Your task to perform on an android device: set the stopwatch Image 0: 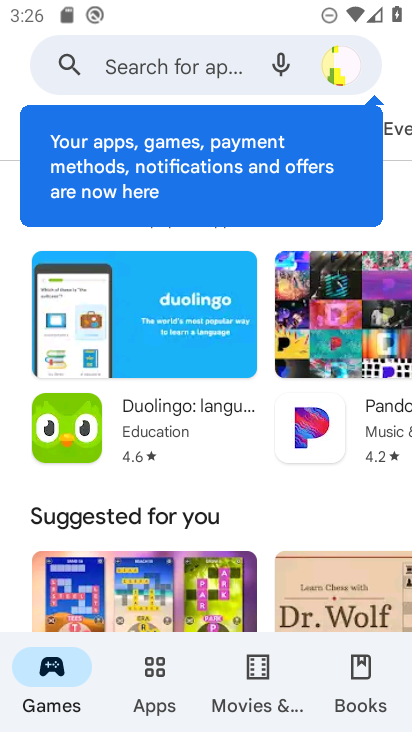
Step 0: press home button
Your task to perform on an android device: set the stopwatch Image 1: 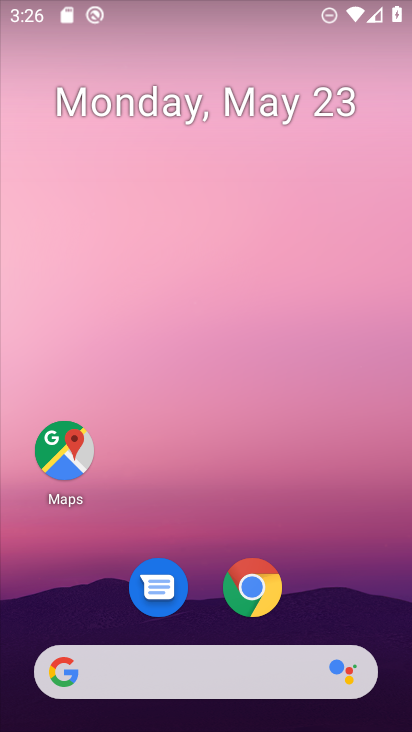
Step 1: drag from (231, 579) to (218, 12)
Your task to perform on an android device: set the stopwatch Image 2: 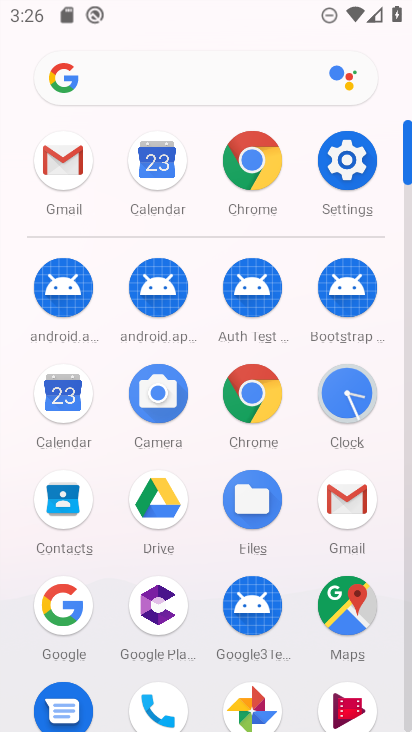
Step 2: click (346, 408)
Your task to perform on an android device: set the stopwatch Image 3: 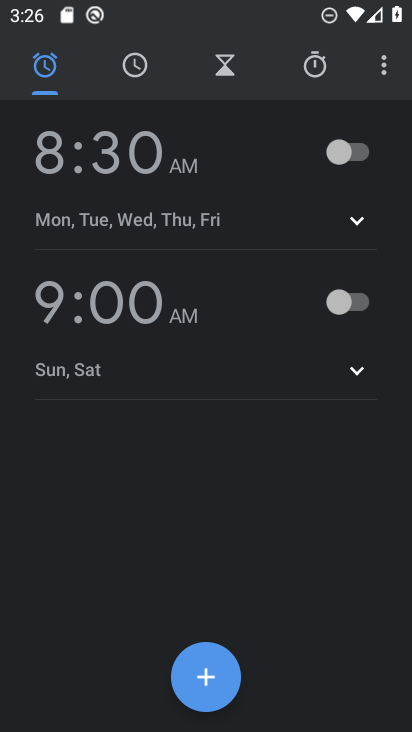
Step 3: click (323, 70)
Your task to perform on an android device: set the stopwatch Image 4: 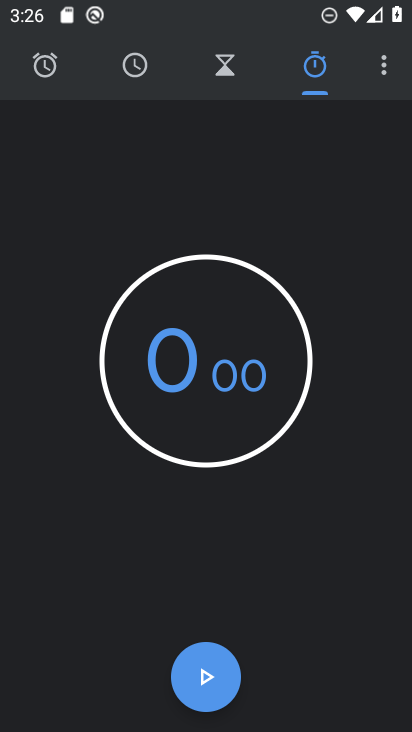
Step 4: click (211, 688)
Your task to perform on an android device: set the stopwatch Image 5: 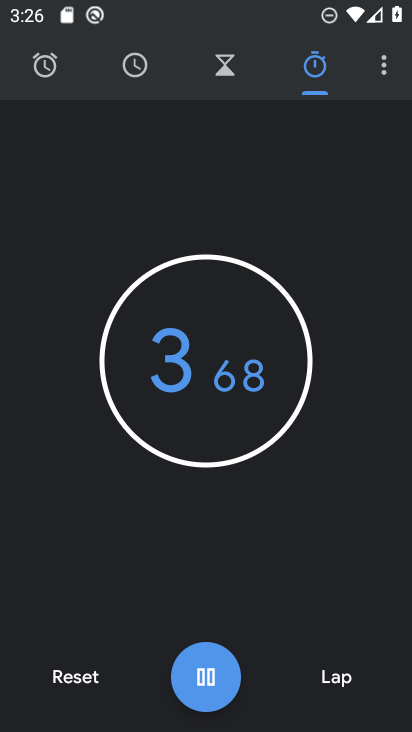
Step 5: task complete